Your task to perform on an android device: change timer sound Image 0: 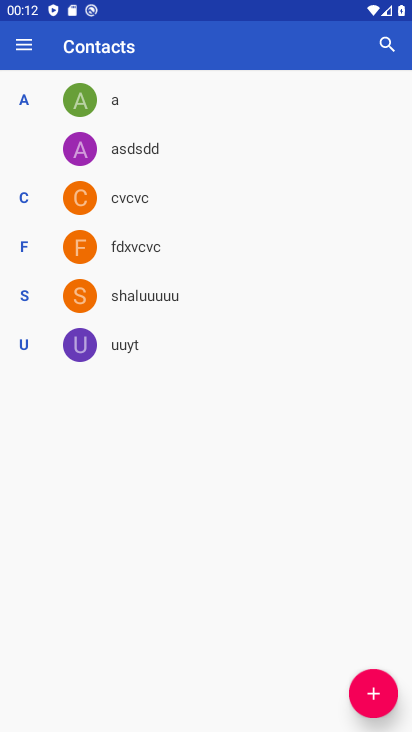
Step 0: press home button
Your task to perform on an android device: change timer sound Image 1: 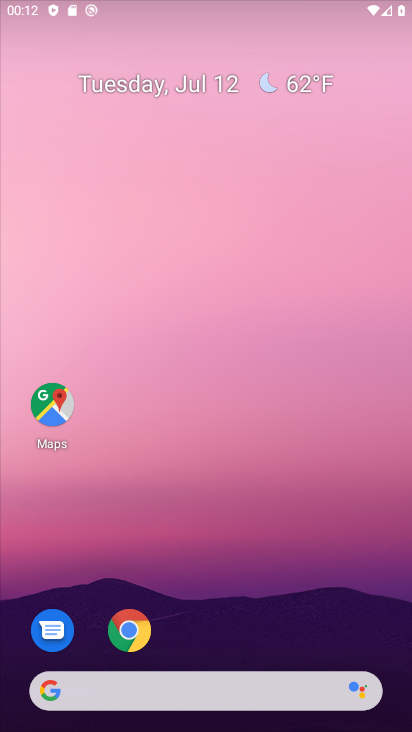
Step 1: drag from (243, 605) to (287, 46)
Your task to perform on an android device: change timer sound Image 2: 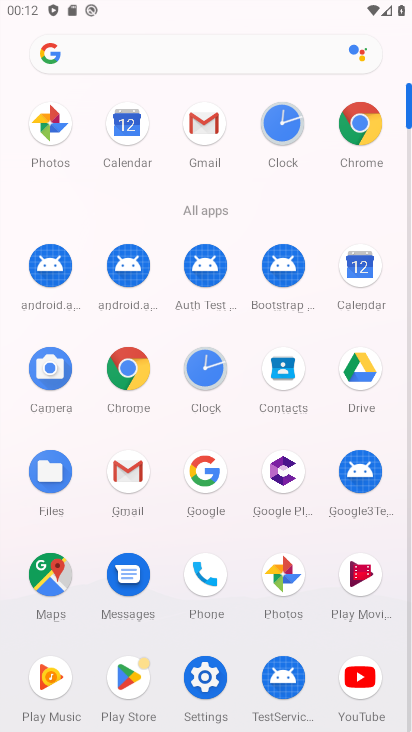
Step 2: click (209, 365)
Your task to perform on an android device: change timer sound Image 3: 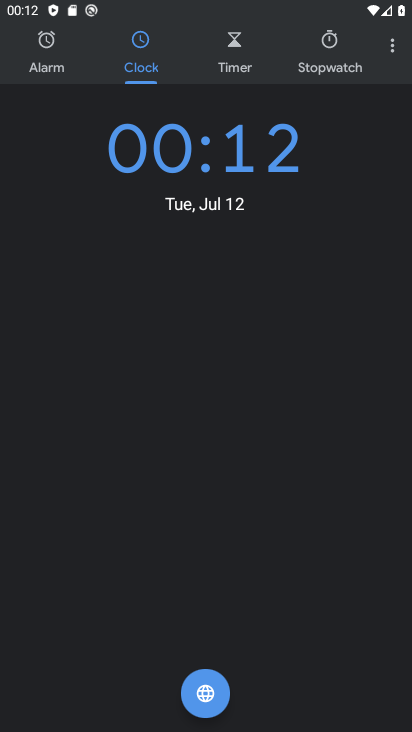
Step 3: click (393, 42)
Your task to perform on an android device: change timer sound Image 4: 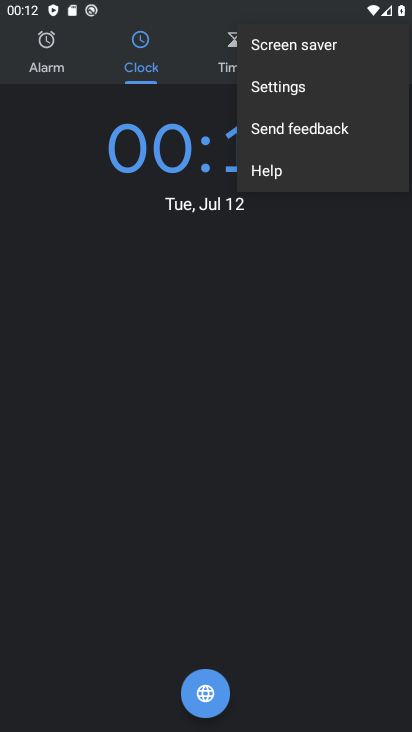
Step 4: click (312, 94)
Your task to perform on an android device: change timer sound Image 5: 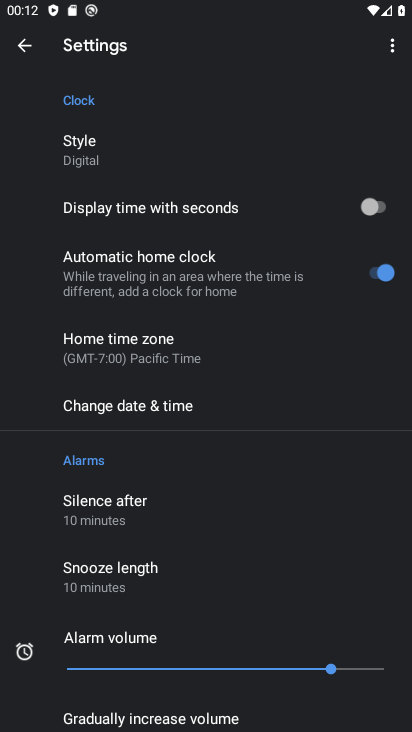
Step 5: drag from (153, 582) to (199, 305)
Your task to perform on an android device: change timer sound Image 6: 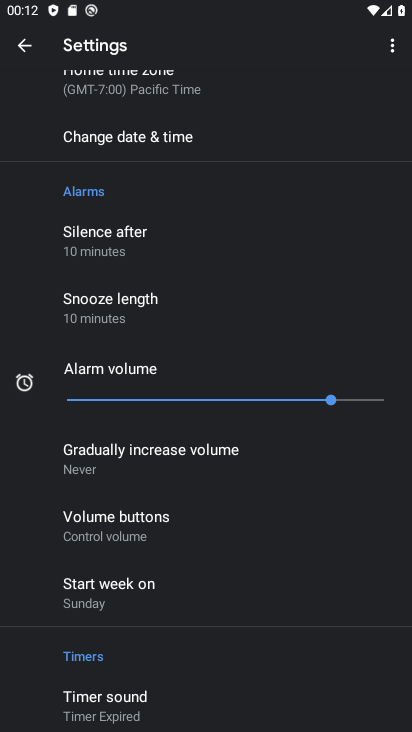
Step 6: drag from (172, 677) to (174, 496)
Your task to perform on an android device: change timer sound Image 7: 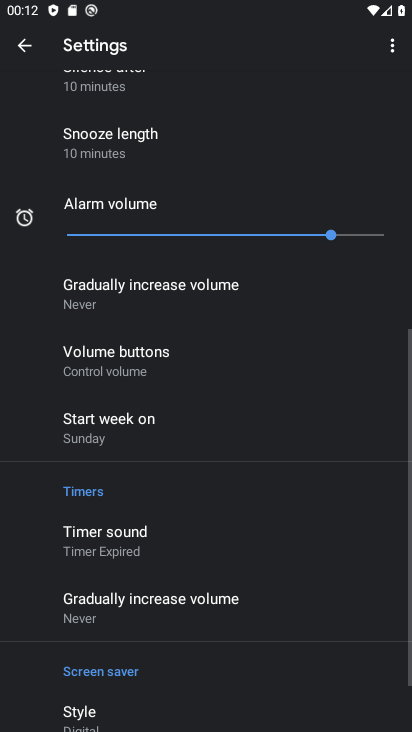
Step 7: click (125, 541)
Your task to perform on an android device: change timer sound Image 8: 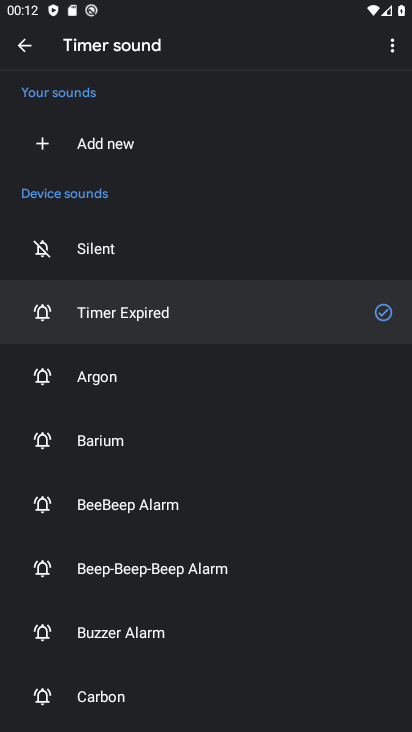
Step 8: click (143, 396)
Your task to perform on an android device: change timer sound Image 9: 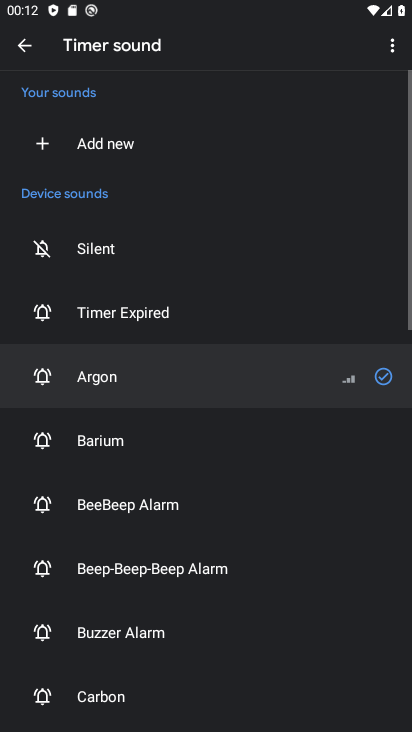
Step 9: task complete